Your task to perform on an android device: Open the phone app and click the voicemail tab. Image 0: 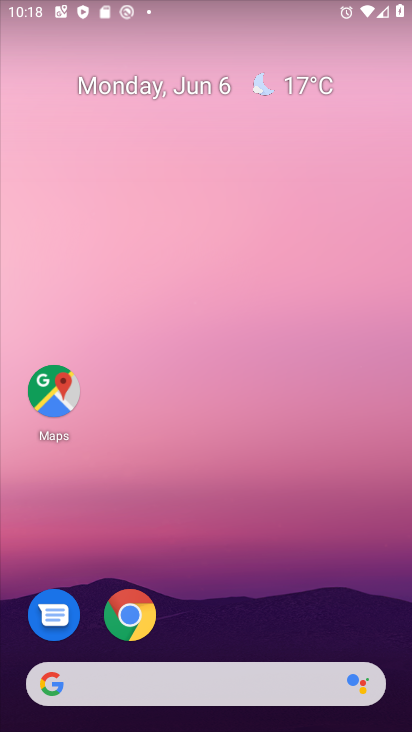
Step 0: drag from (192, 630) to (192, 13)
Your task to perform on an android device: Open the phone app and click the voicemail tab. Image 1: 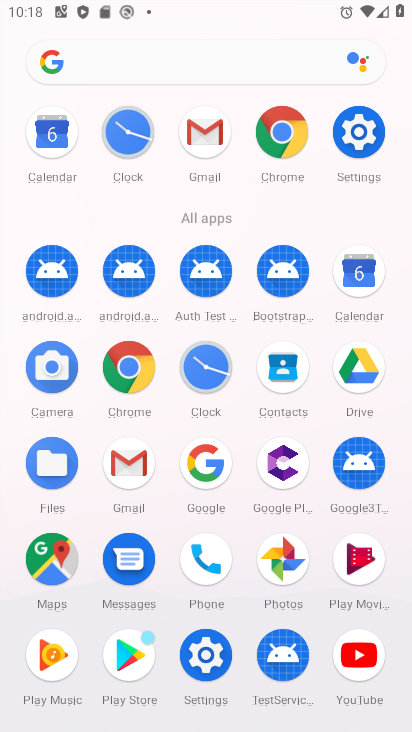
Step 1: click (242, 28)
Your task to perform on an android device: Open the phone app and click the voicemail tab. Image 2: 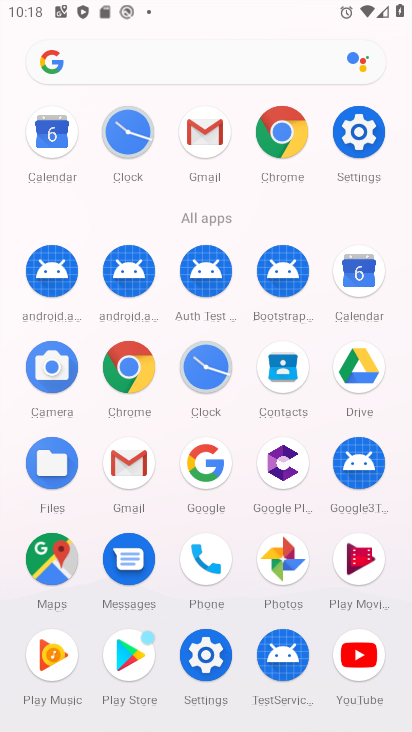
Step 2: click (199, 557)
Your task to perform on an android device: Open the phone app and click the voicemail tab. Image 3: 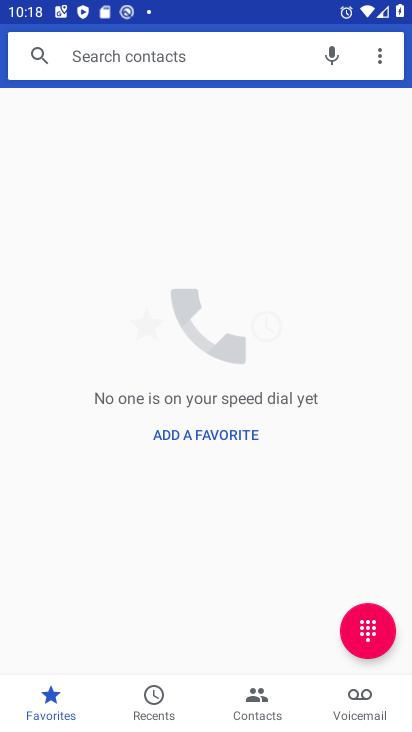
Step 3: click (362, 703)
Your task to perform on an android device: Open the phone app and click the voicemail tab. Image 4: 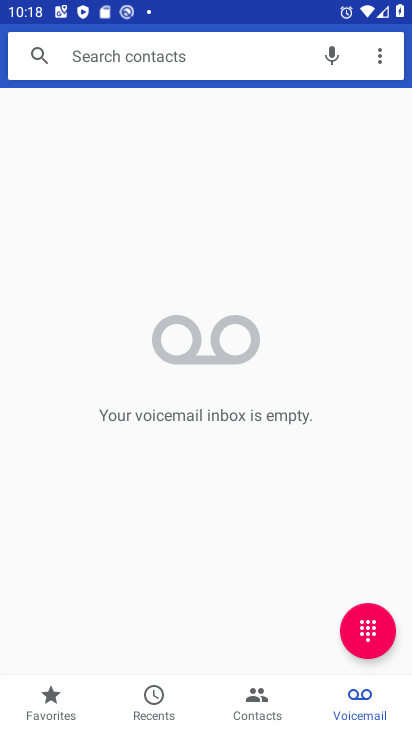
Step 4: task complete